Your task to perform on an android device: Show me popular videos on Youtube Image 0: 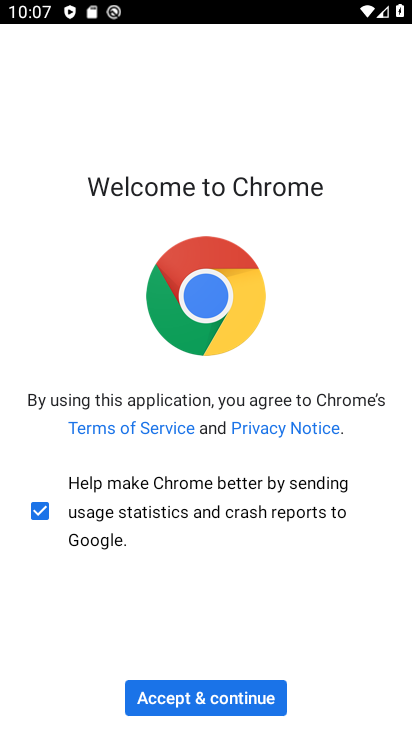
Step 0: press home button
Your task to perform on an android device: Show me popular videos on Youtube Image 1: 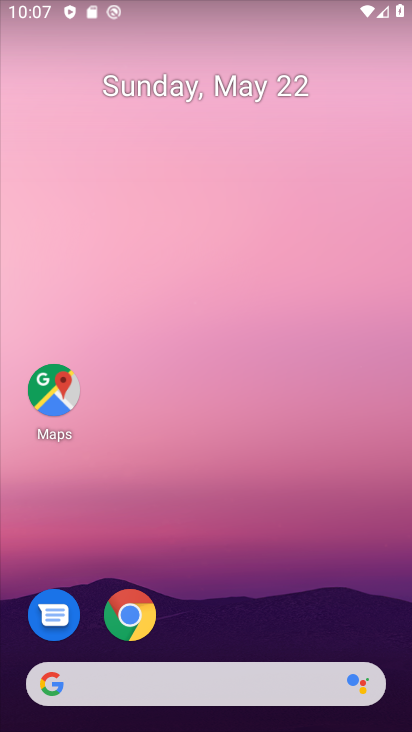
Step 1: drag from (261, 622) to (253, 4)
Your task to perform on an android device: Show me popular videos on Youtube Image 2: 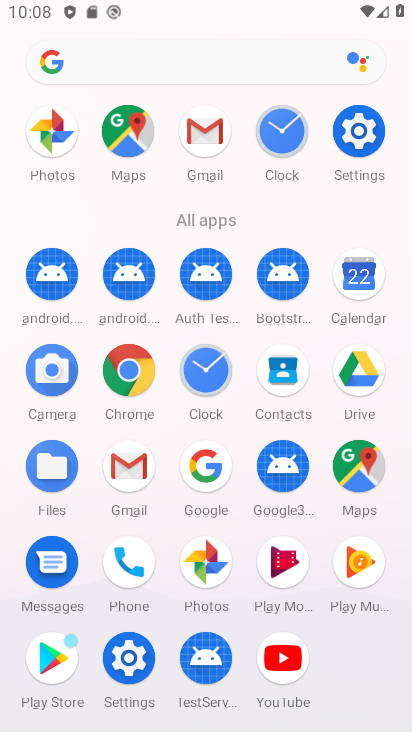
Step 2: click (292, 664)
Your task to perform on an android device: Show me popular videos on Youtube Image 3: 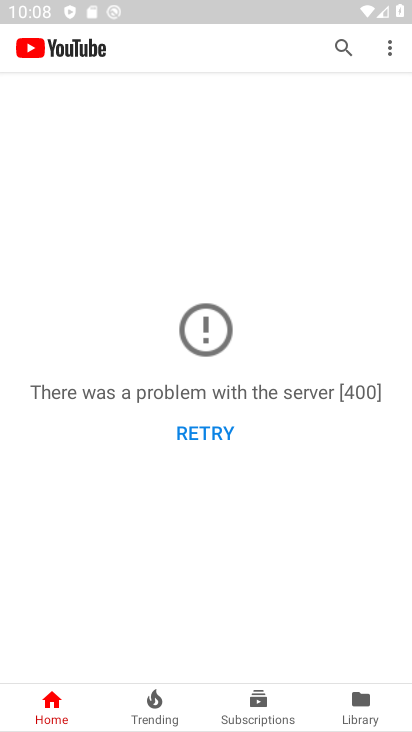
Step 3: click (367, 700)
Your task to perform on an android device: Show me popular videos on Youtube Image 4: 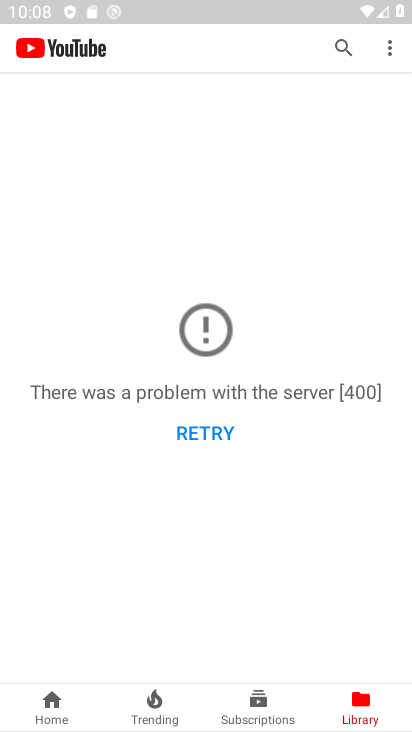
Step 4: click (48, 712)
Your task to perform on an android device: Show me popular videos on Youtube Image 5: 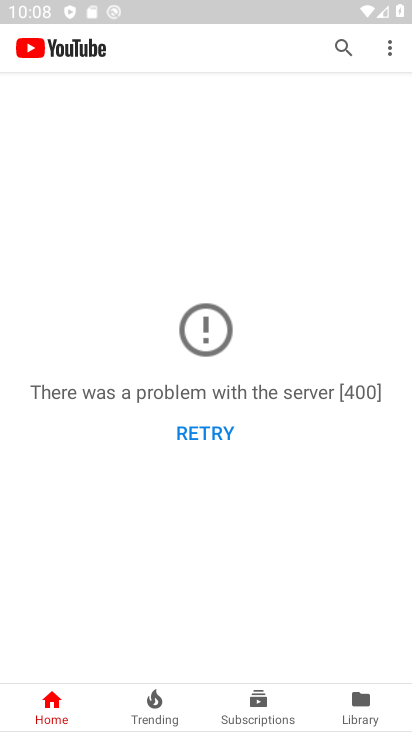
Step 5: task complete